Your task to perform on an android device: Go to CNN.com Image 0: 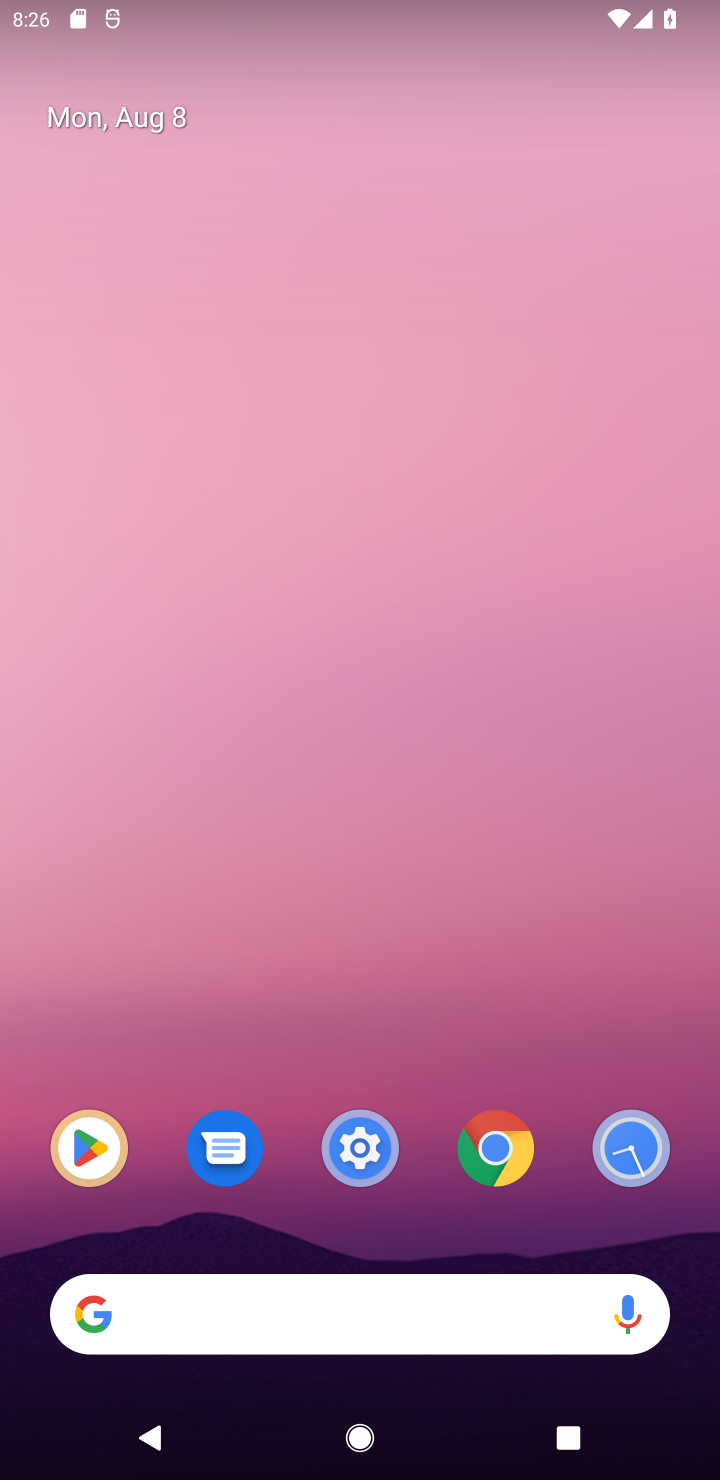
Step 0: click (481, 1147)
Your task to perform on an android device: Go to CNN.com Image 1: 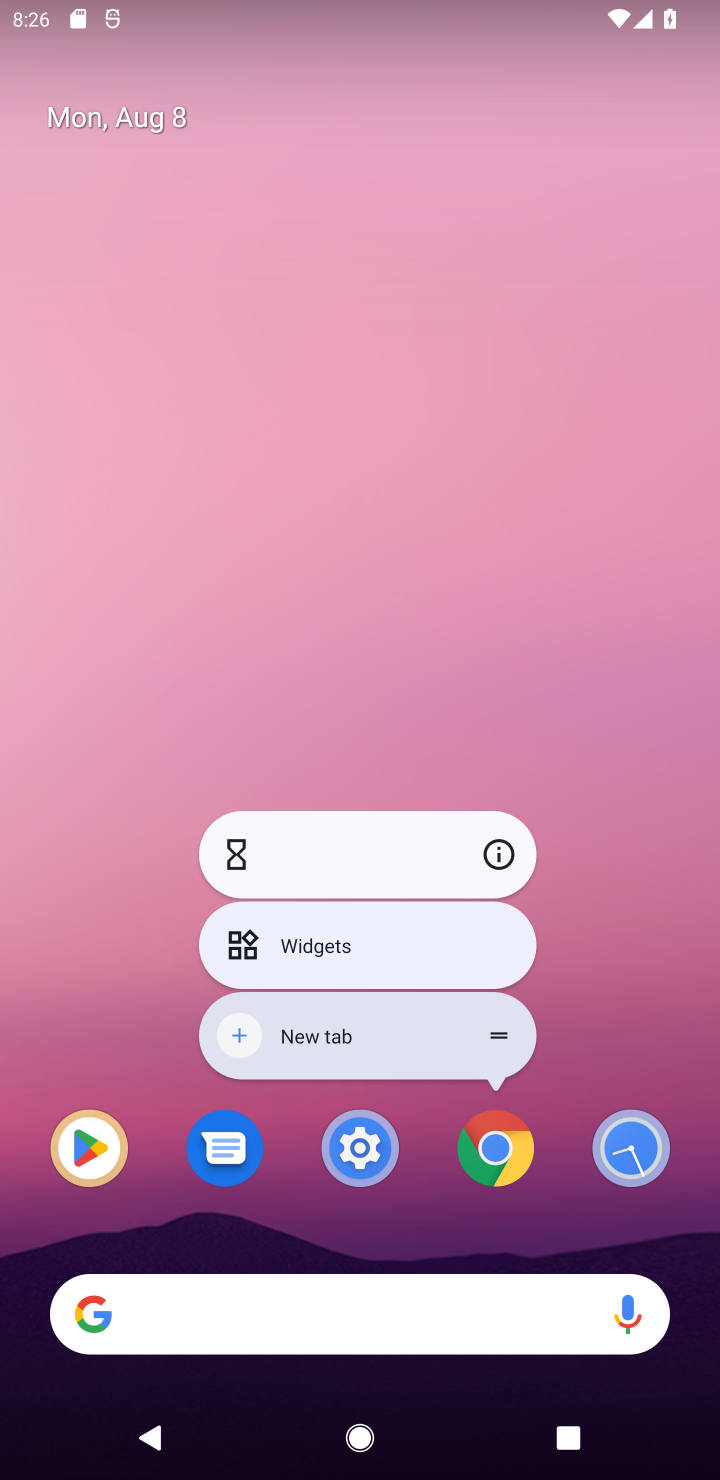
Step 1: click (481, 1147)
Your task to perform on an android device: Go to CNN.com Image 2: 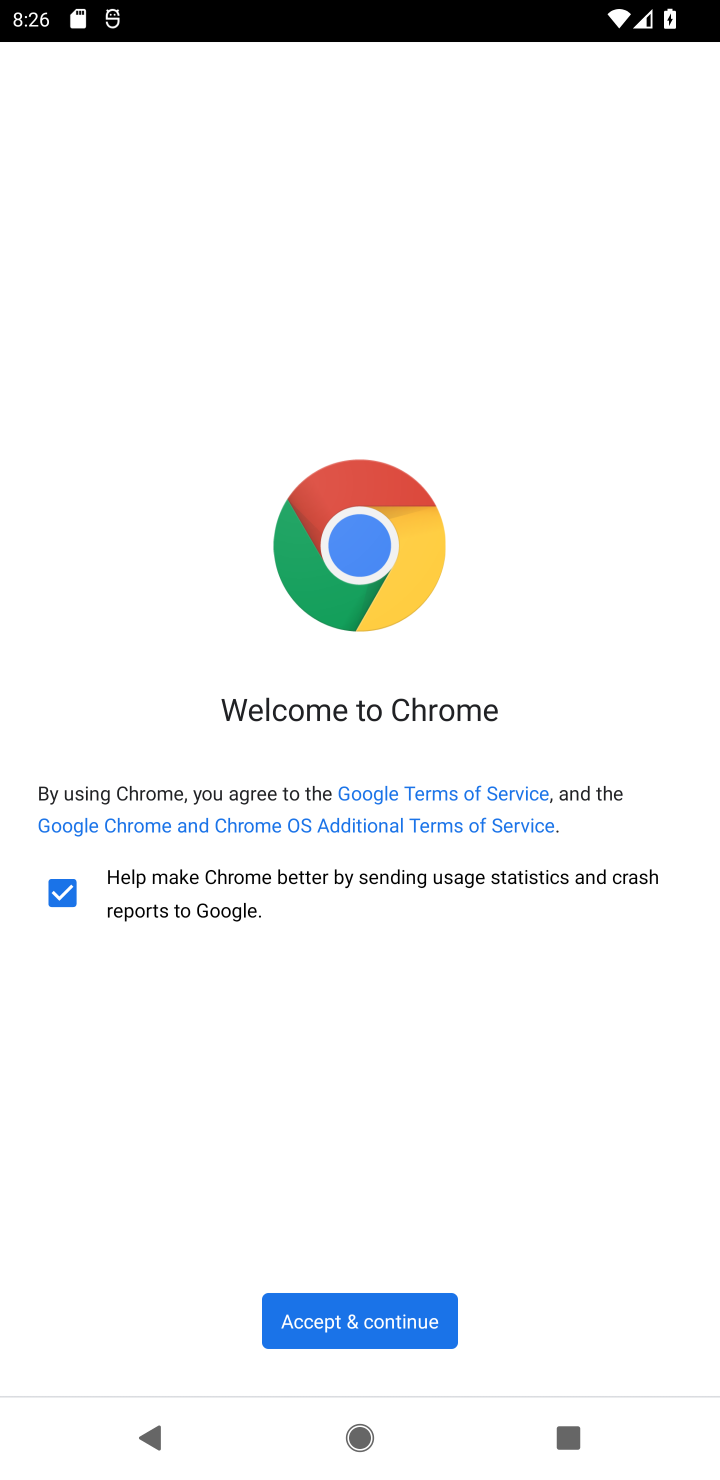
Step 2: click (392, 1331)
Your task to perform on an android device: Go to CNN.com Image 3: 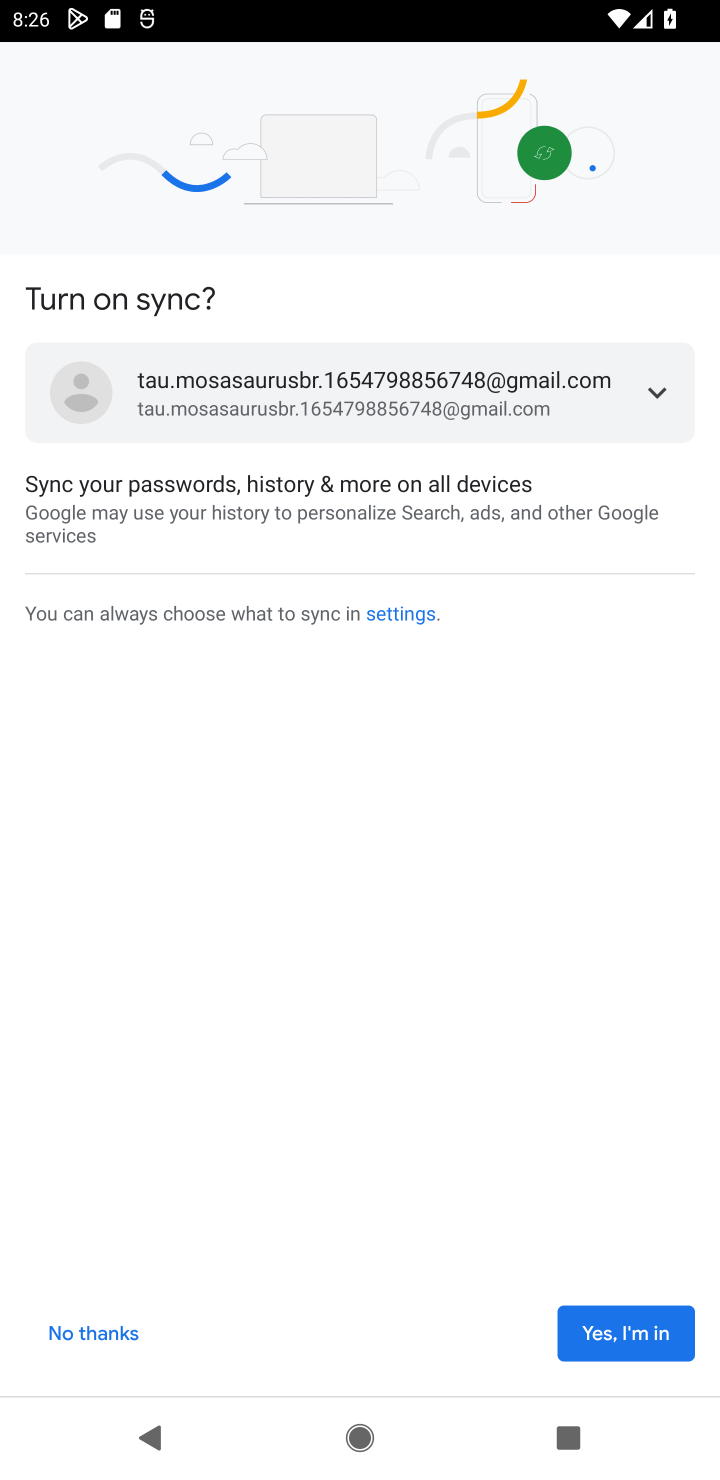
Step 3: click (587, 1325)
Your task to perform on an android device: Go to CNN.com Image 4: 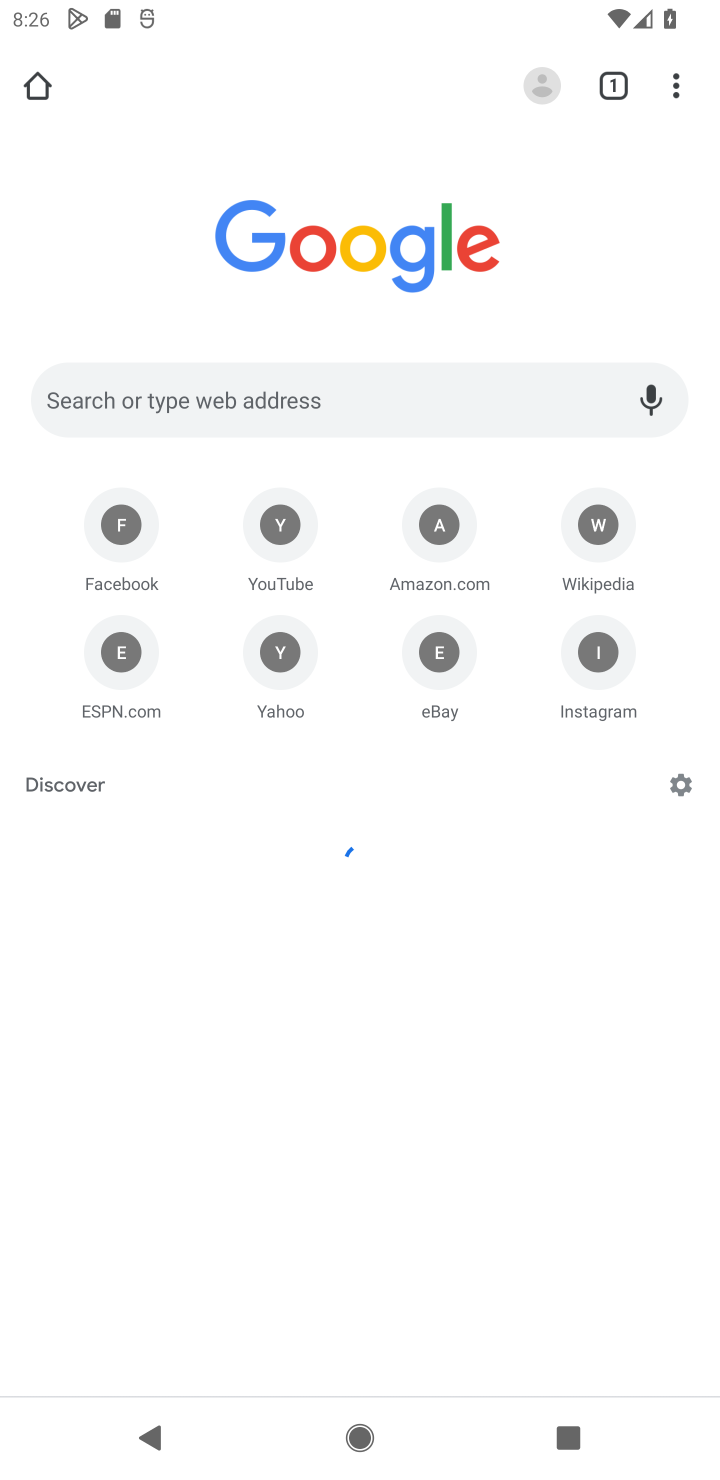
Step 4: click (354, 390)
Your task to perform on an android device: Go to CNN.com Image 5: 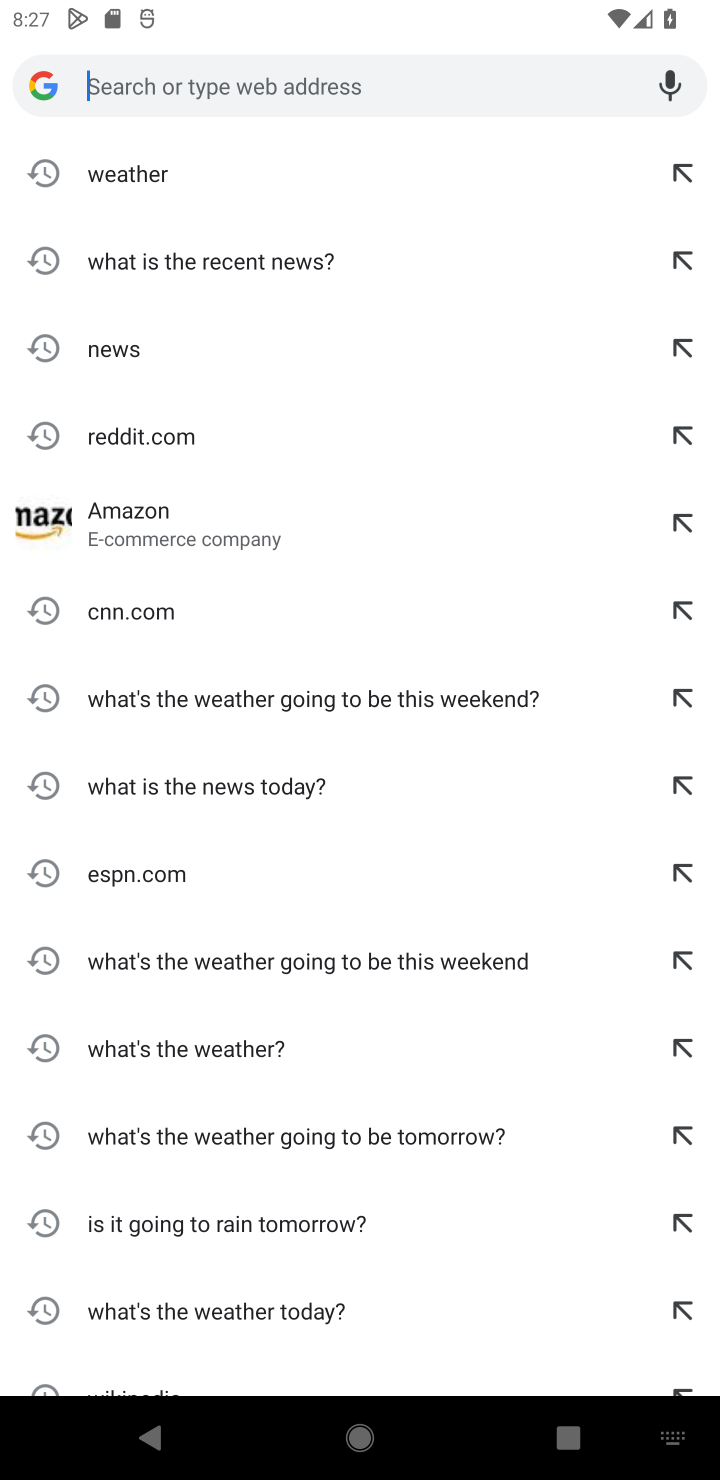
Step 5: type "cnn.com"
Your task to perform on an android device: Go to CNN.com Image 6: 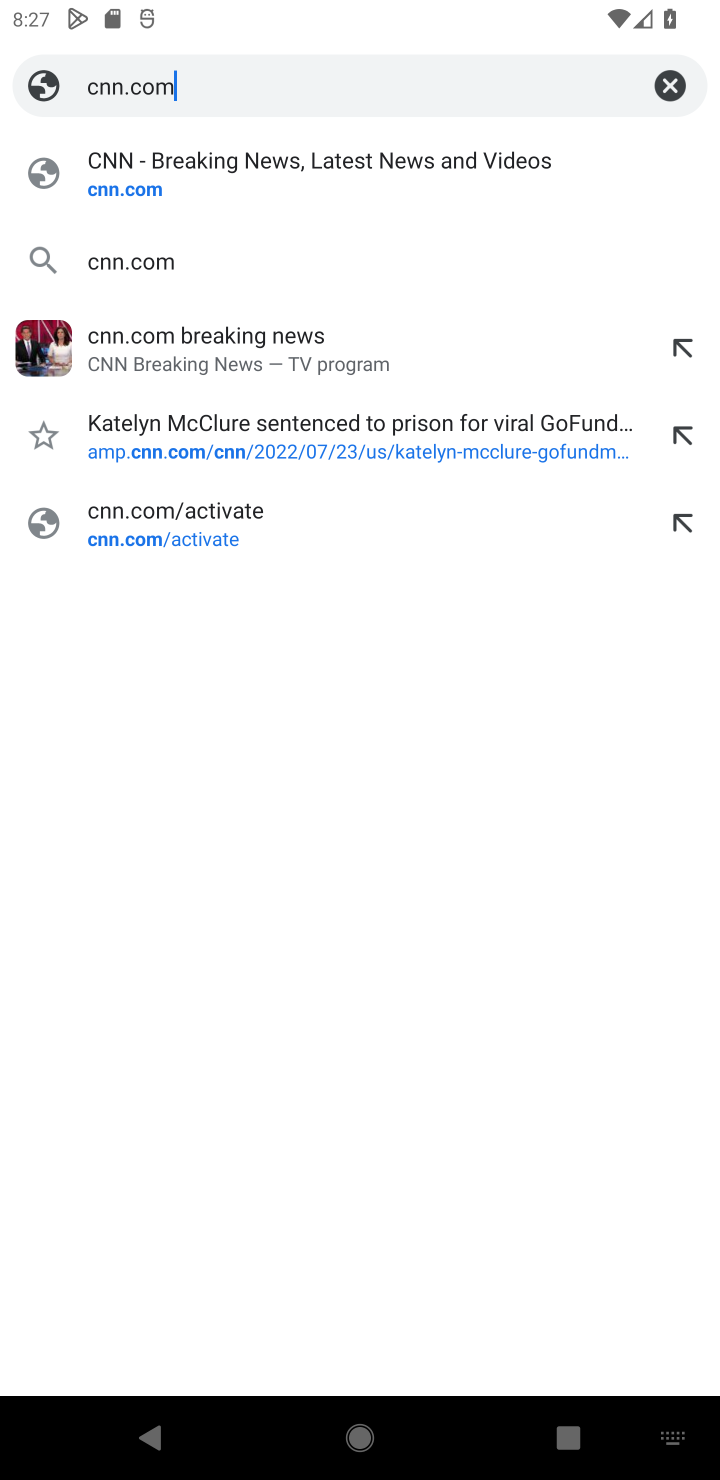
Step 6: click (122, 169)
Your task to perform on an android device: Go to CNN.com Image 7: 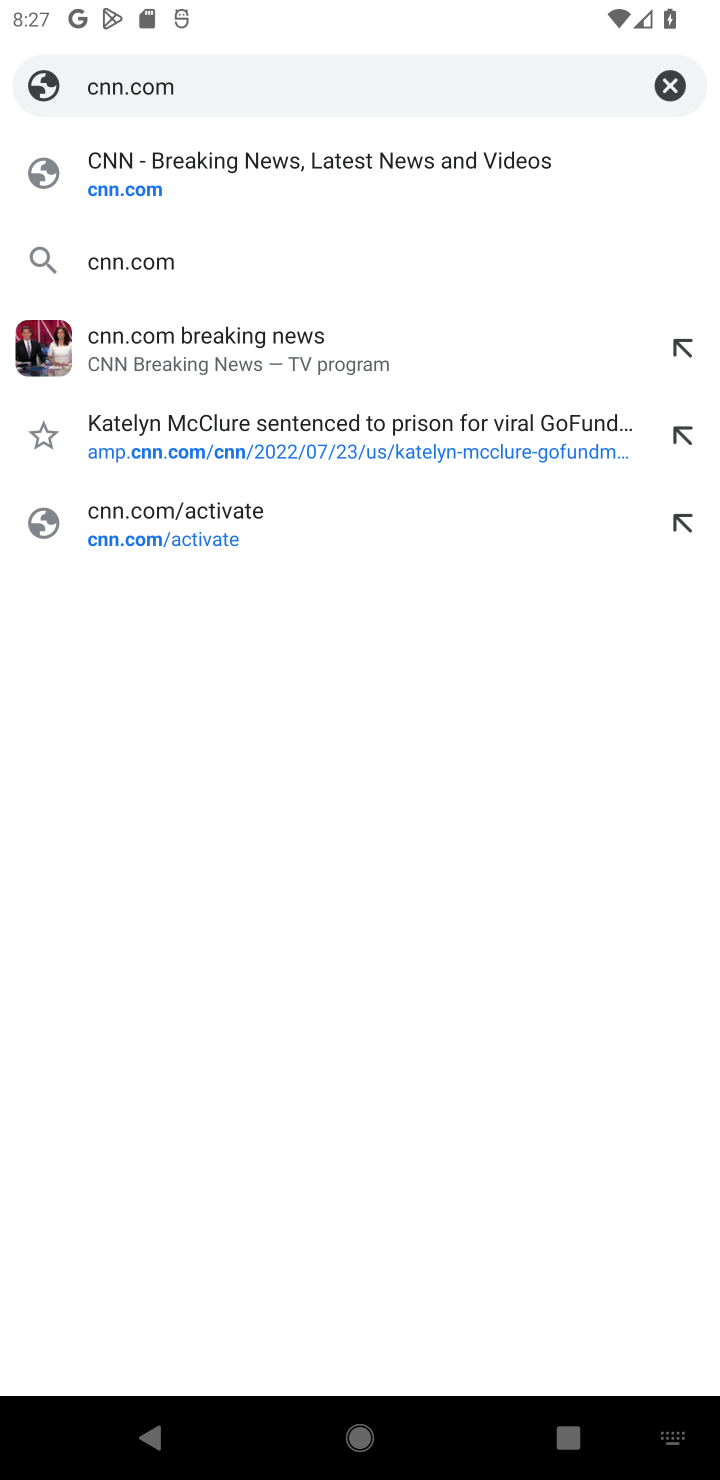
Step 7: click (385, 153)
Your task to perform on an android device: Go to CNN.com Image 8: 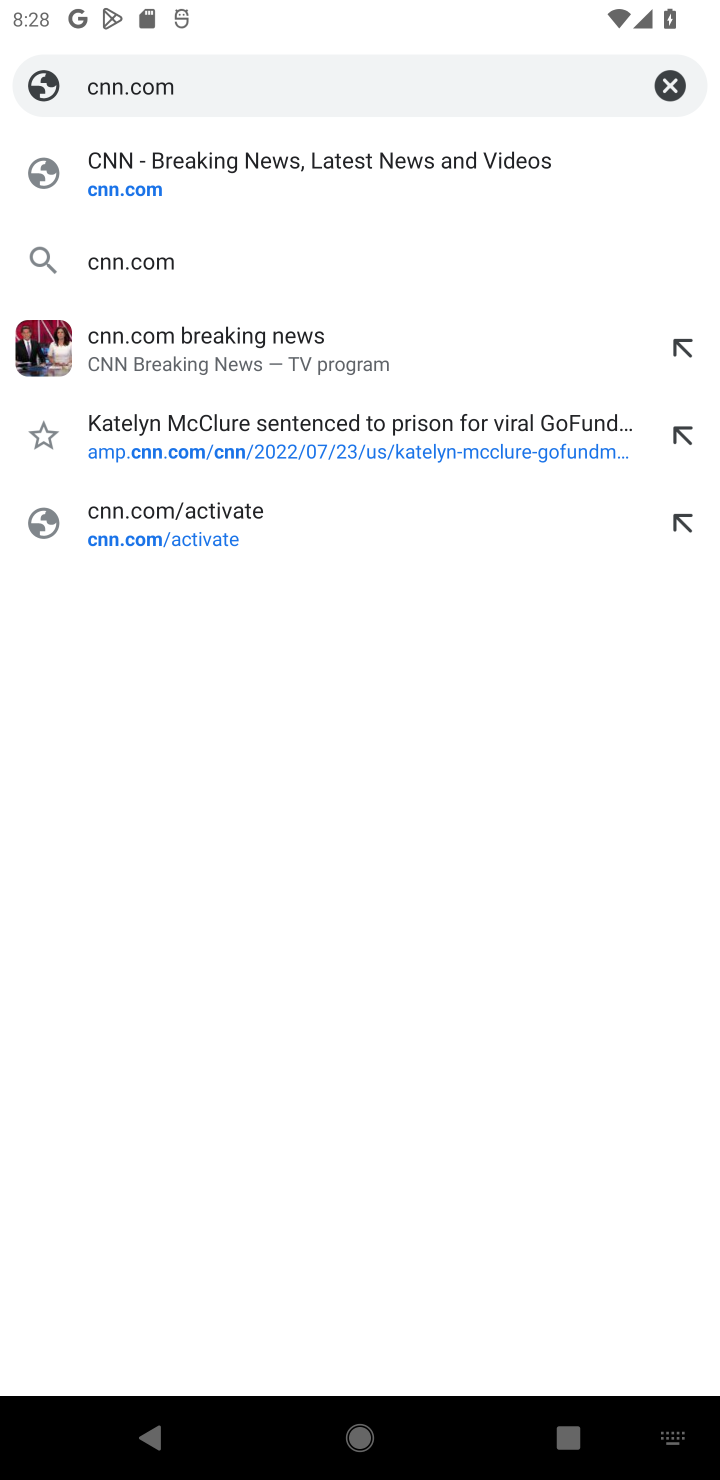
Step 8: click (291, 213)
Your task to perform on an android device: Go to CNN.com Image 9: 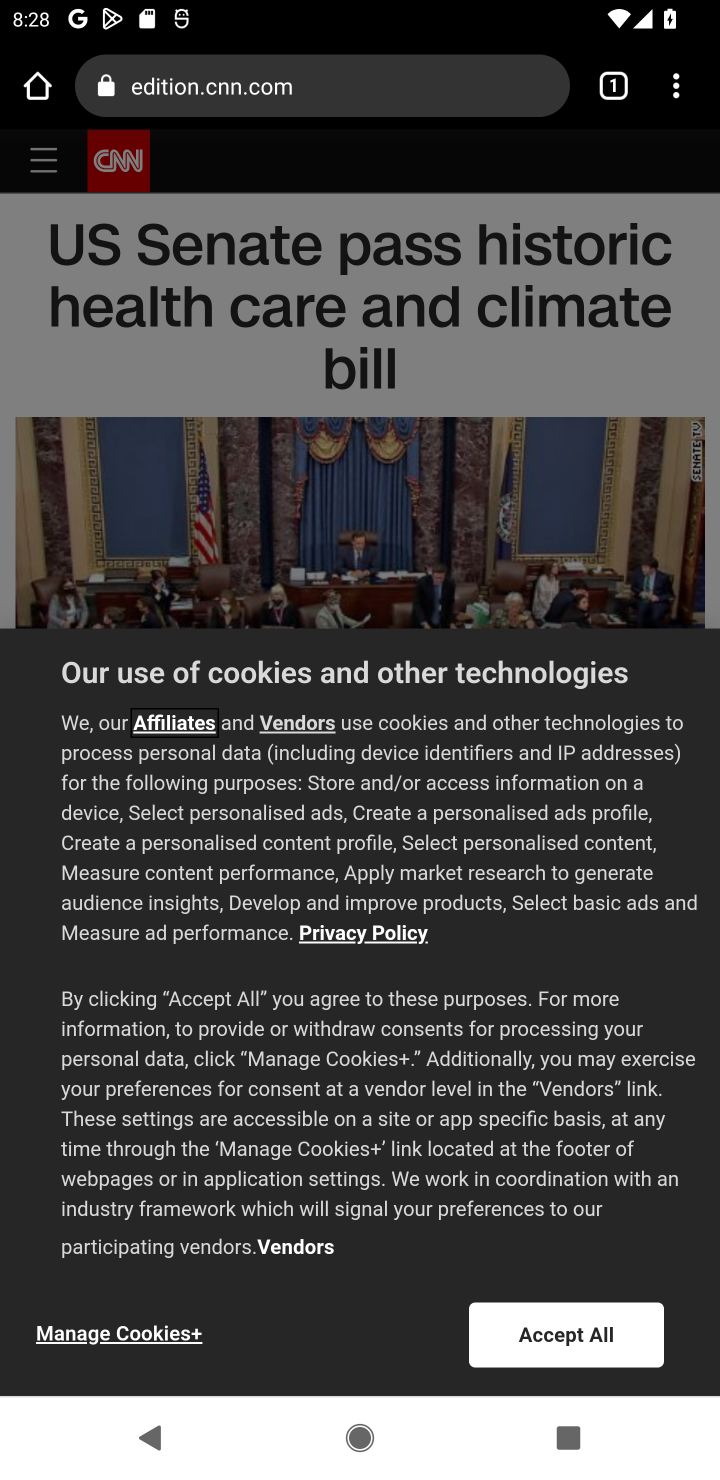
Step 9: task complete